Your task to perform on an android device: Turn off the flashlight Image 0: 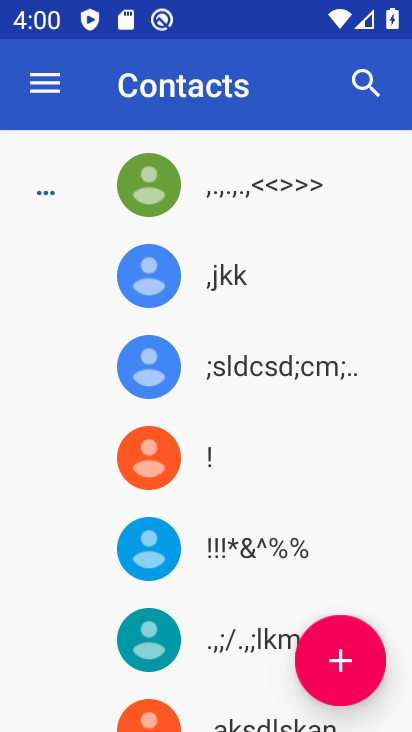
Step 0: drag from (275, 19) to (238, 514)
Your task to perform on an android device: Turn off the flashlight Image 1: 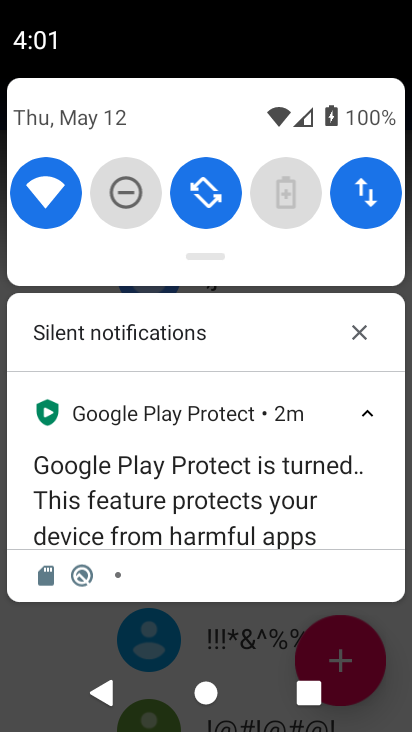
Step 1: task complete